Your task to perform on an android device: star an email in the gmail app Image 0: 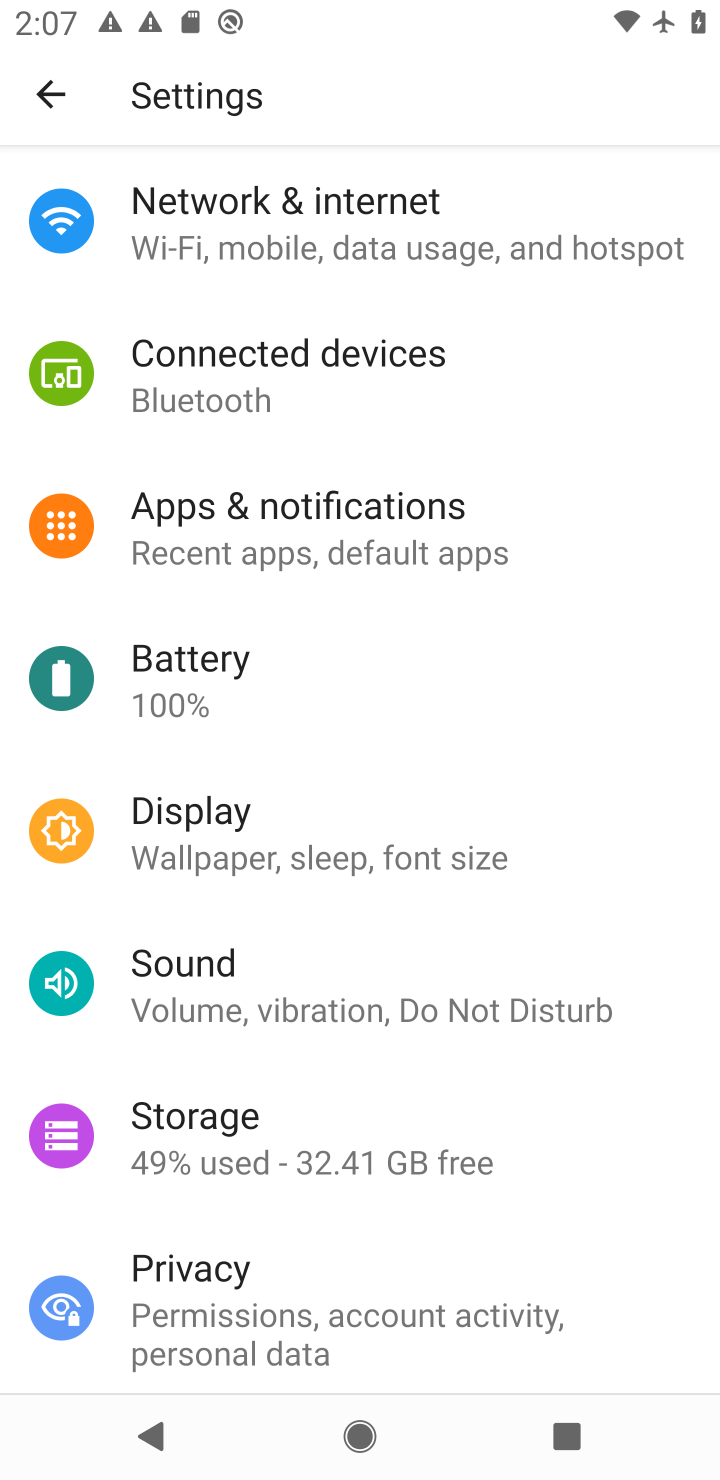
Step 0: press home button
Your task to perform on an android device: star an email in the gmail app Image 1: 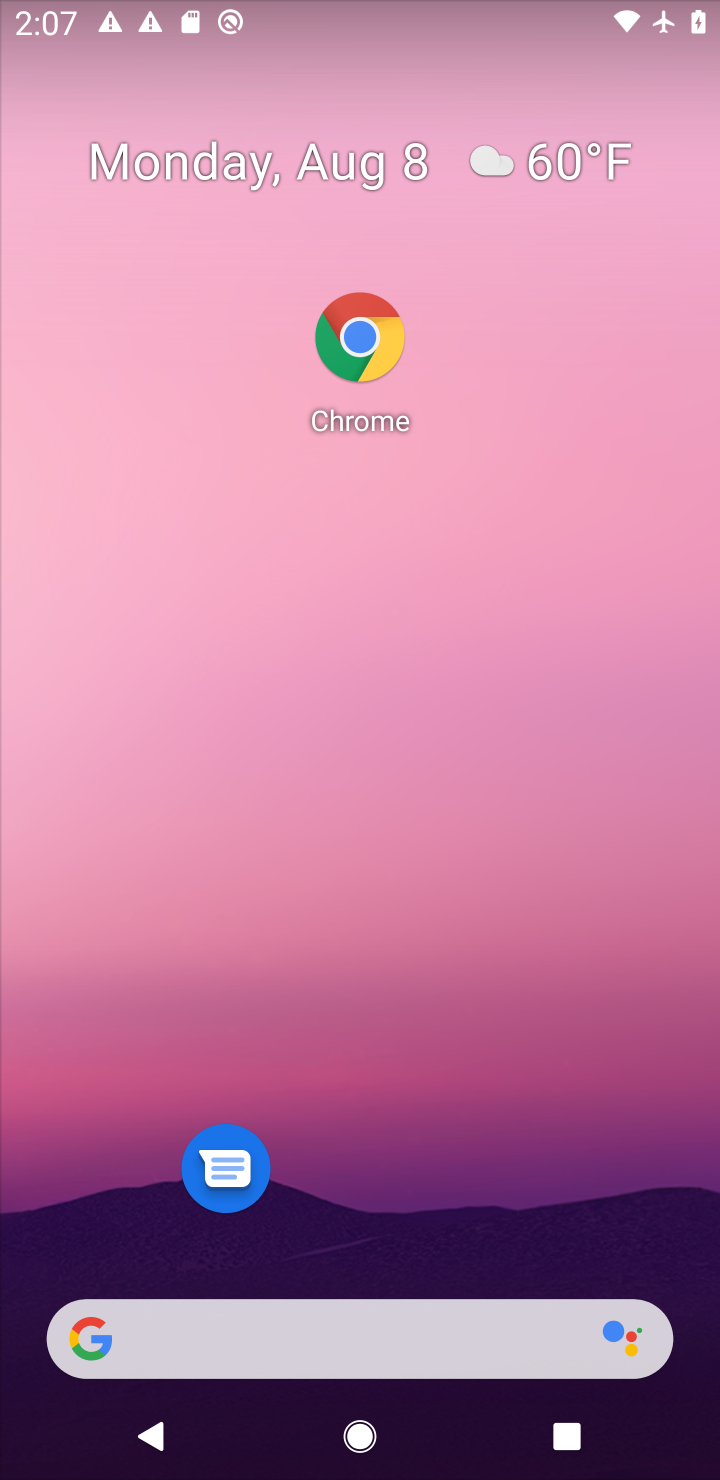
Step 1: drag from (481, 1287) to (527, 230)
Your task to perform on an android device: star an email in the gmail app Image 2: 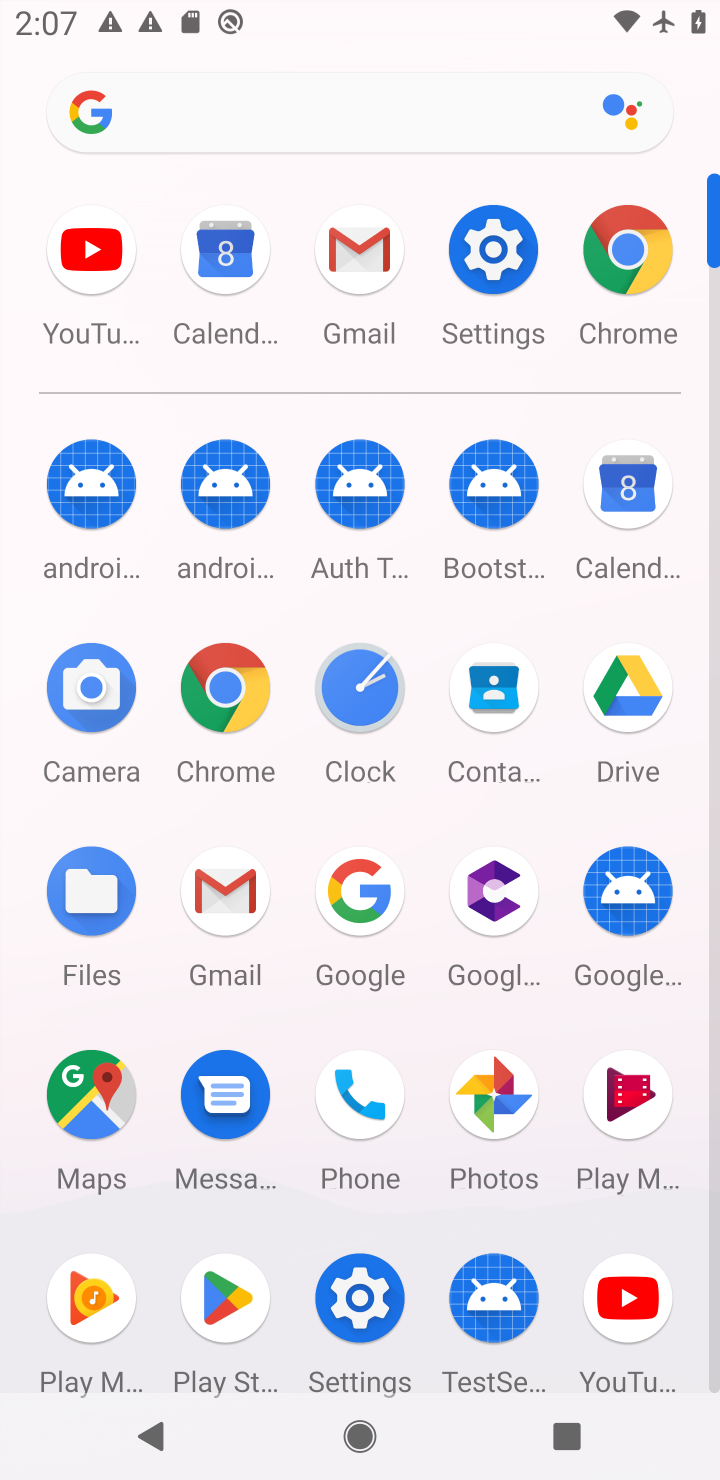
Step 2: click (390, 282)
Your task to perform on an android device: star an email in the gmail app Image 3: 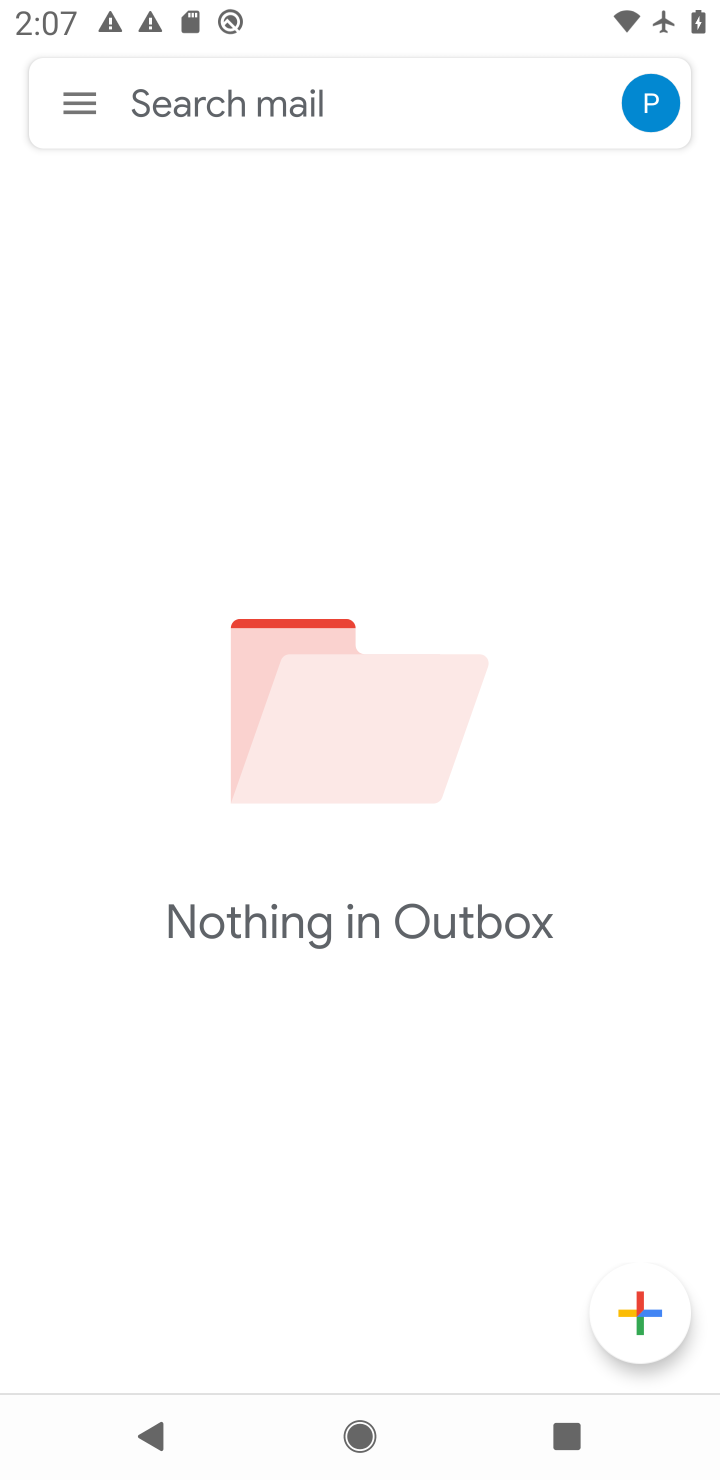
Step 3: click (78, 97)
Your task to perform on an android device: star an email in the gmail app Image 4: 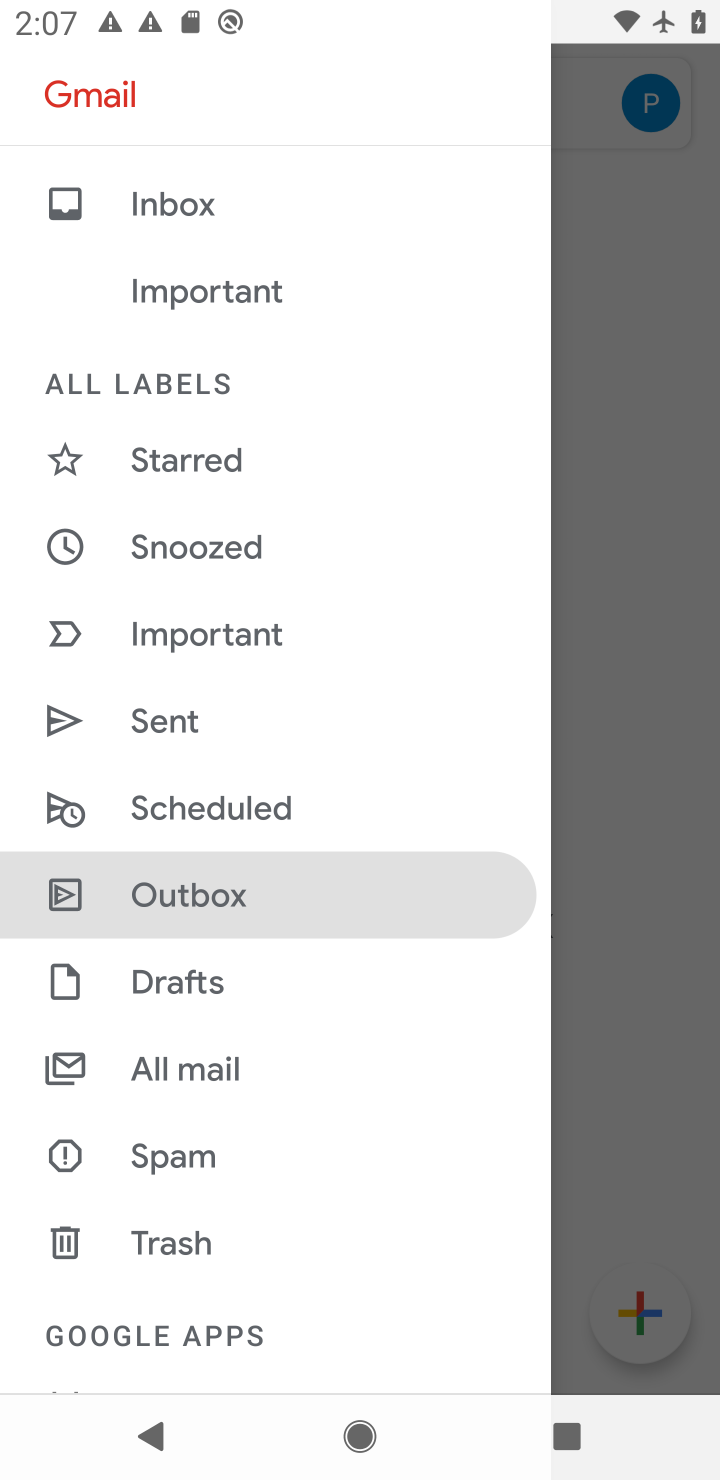
Step 4: click (163, 484)
Your task to perform on an android device: star an email in the gmail app Image 5: 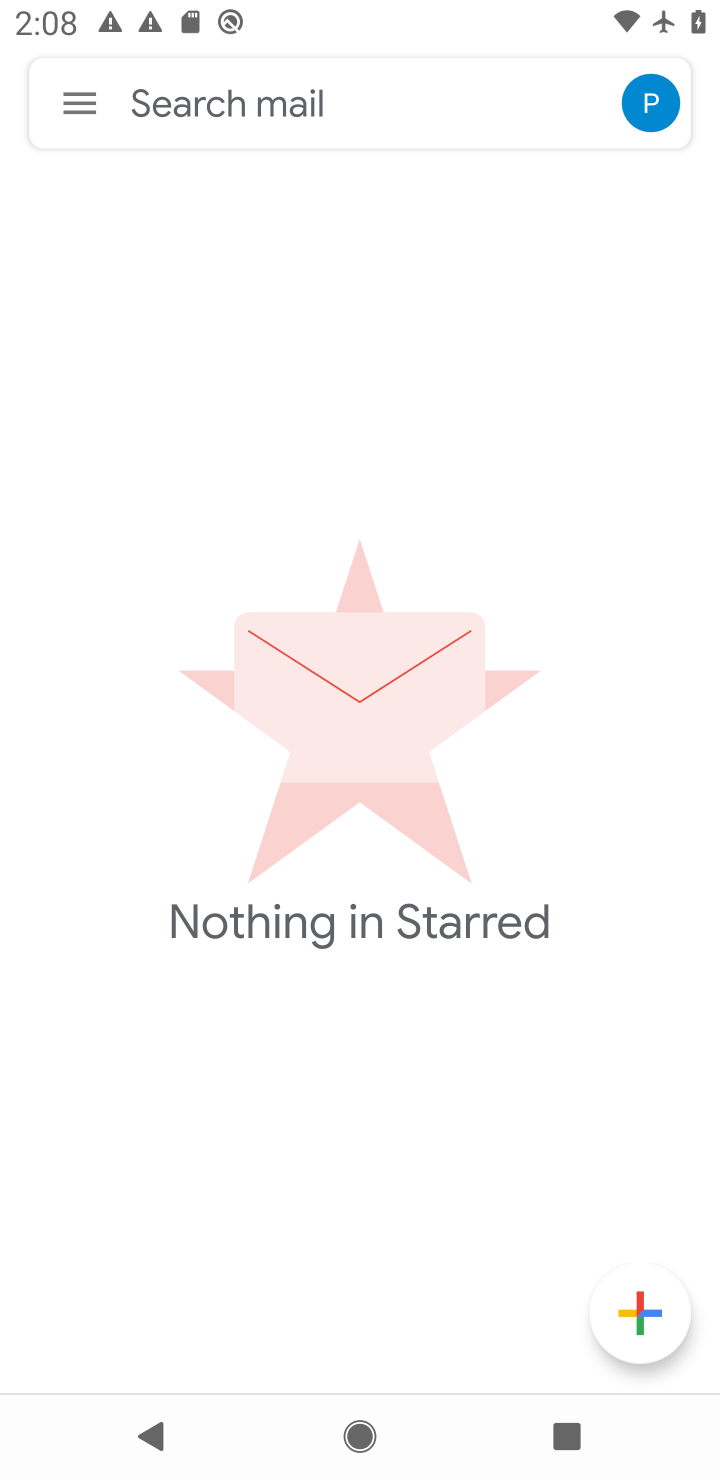
Step 5: task complete